Your task to perform on an android device: turn on the 24-hour format for clock Image 0: 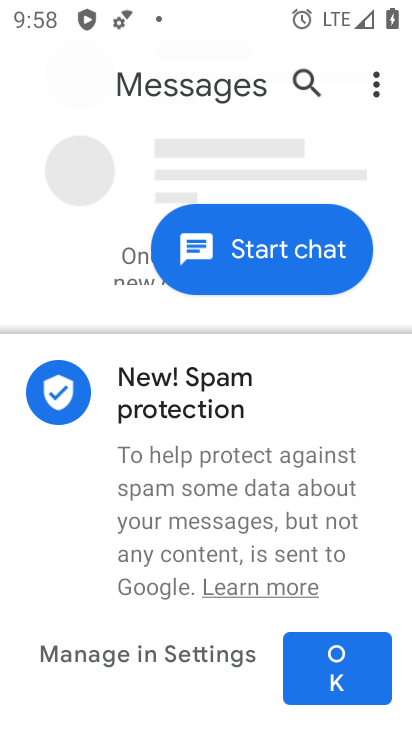
Step 0: press home button
Your task to perform on an android device: turn on the 24-hour format for clock Image 1: 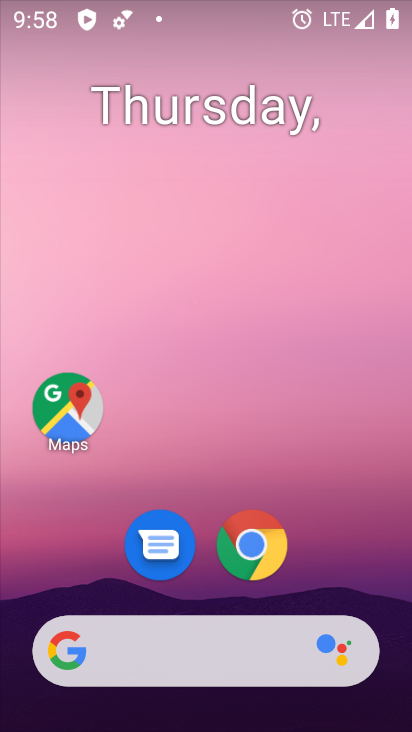
Step 1: drag from (355, 563) to (302, 70)
Your task to perform on an android device: turn on the 24-hour format for clock Image 2: 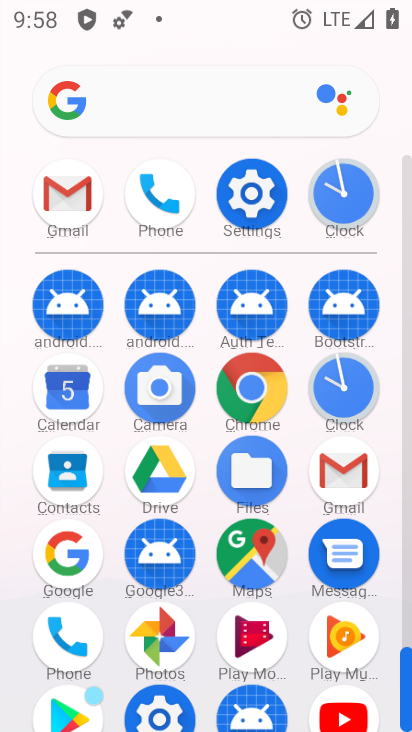
Step 2: click (338, 189)
Your task to perform on an android device: turn on the 24-hour format for clock Image 3: 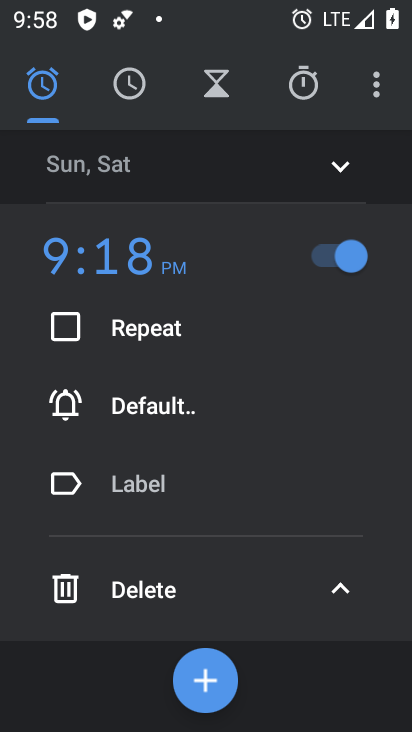
Step 3: click (379, 93)
Your task to perform on an android device: turn on the 24-hour format for clock Image 4: 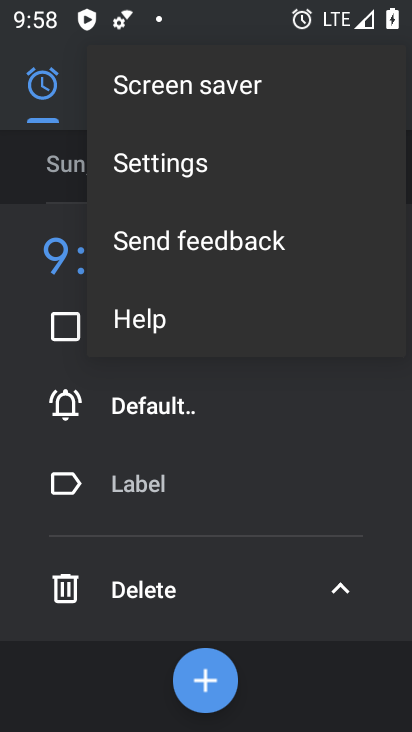
Step 4: click (181, 157)
Your task to perform on an android device: turn on the 24-hour format for clock Image 5: 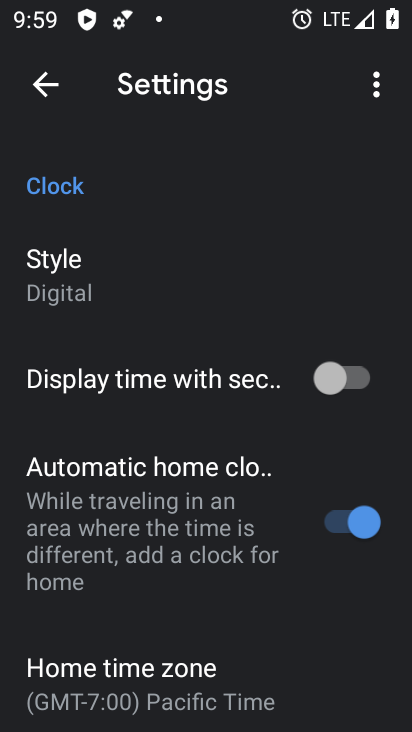
Step 5: drag from (262, 633) to (183, 299)
Your task to perform on an android device: turn on the 24-hour format for clock Image 6: 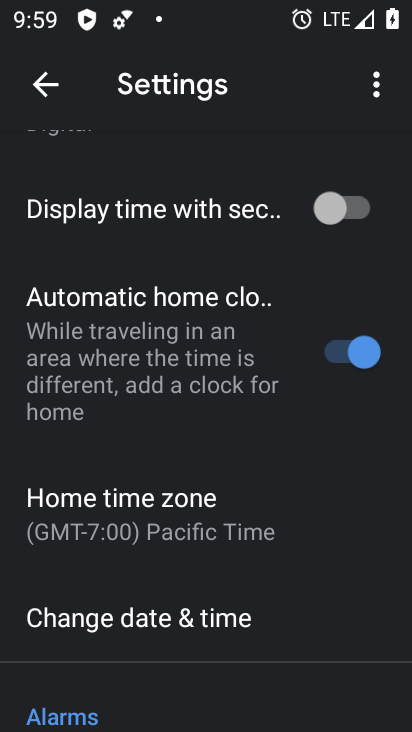
Step 6: click (164, 628)
Your task to perform on an android device: turn on the 24-hour format for clock Image 7: 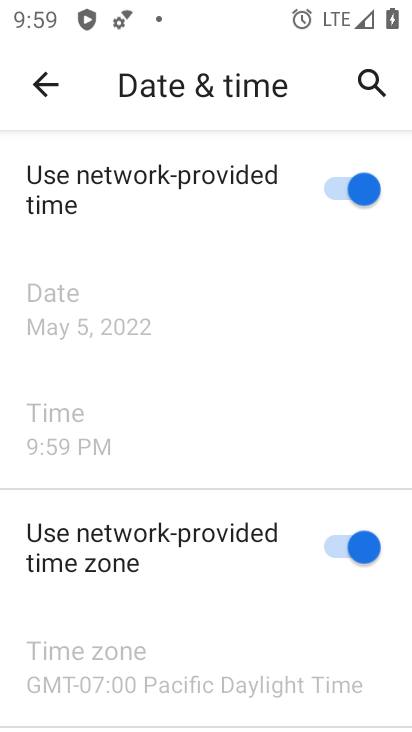
Step 7: drag from (192, 428) to (144, 102)
Your task to perform on an android device: turn on the 24-hour format for clock Image 8: 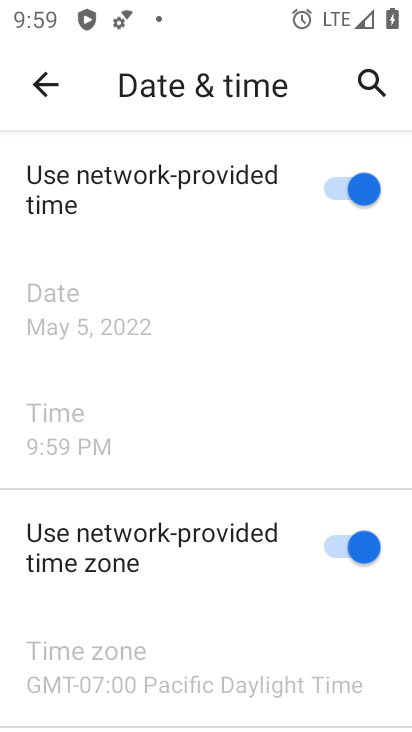
Step 8: drag from (239, 576) to (160, 223)
Your task to perform on an android device: turn on the 24-hour format for clock Image 9: 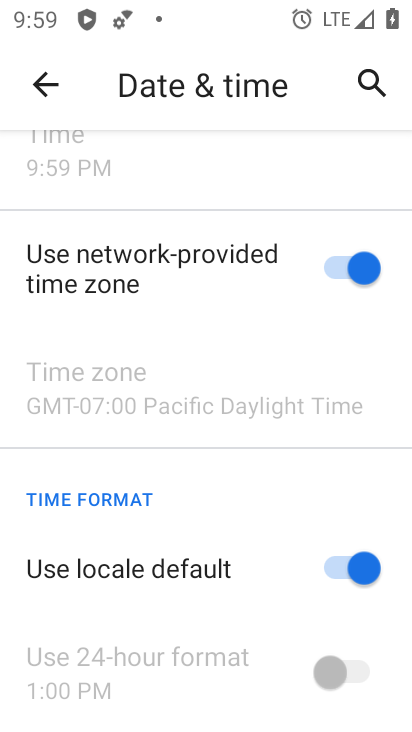
Step 9: click (137, 75)
Your task to perform on an android device: turn on the 24-hour format for clock Image 10: 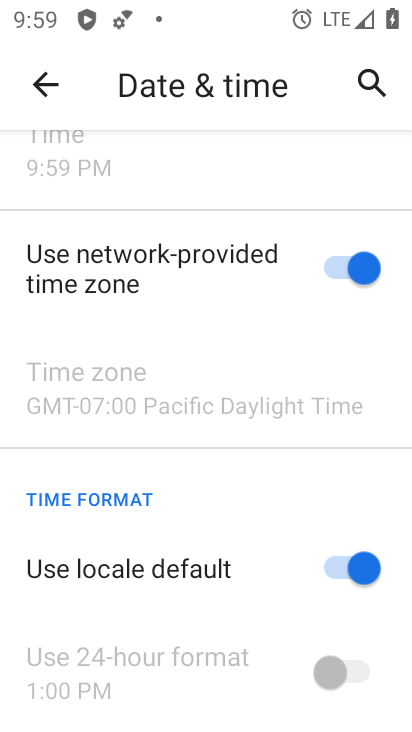
Step 10: click (368, 578)
Your task to perform on an android device: turn on the 24-hour format for clock Image 11: 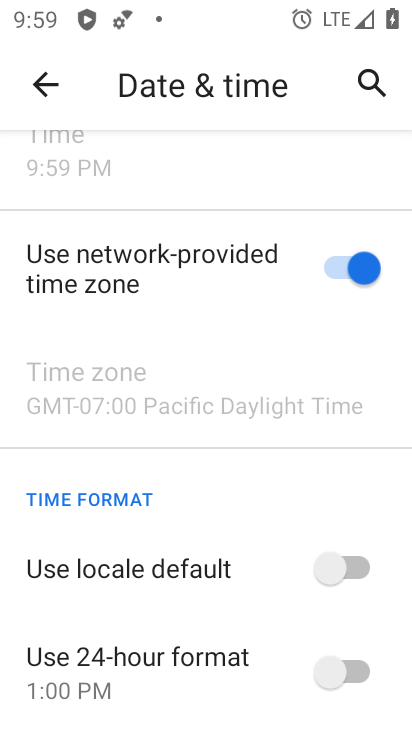
Step 11: click (336, 681)
Your task to perform on an android device: turn on the 24-hour format for clock Image 12: 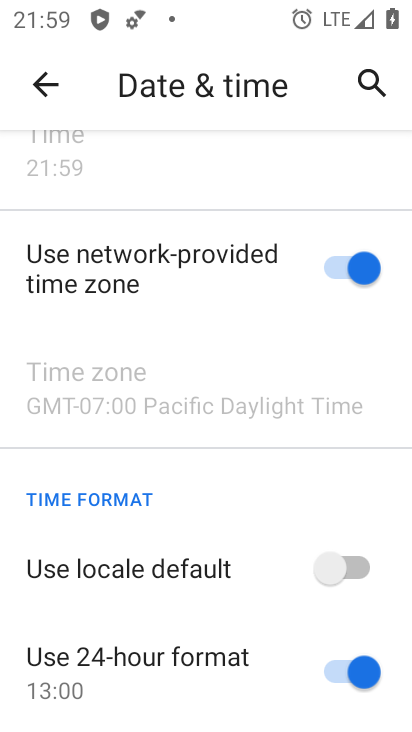
Step 12: task complete